Your task to perform on an android device: turn on the 24-hour format for clock Image 0: 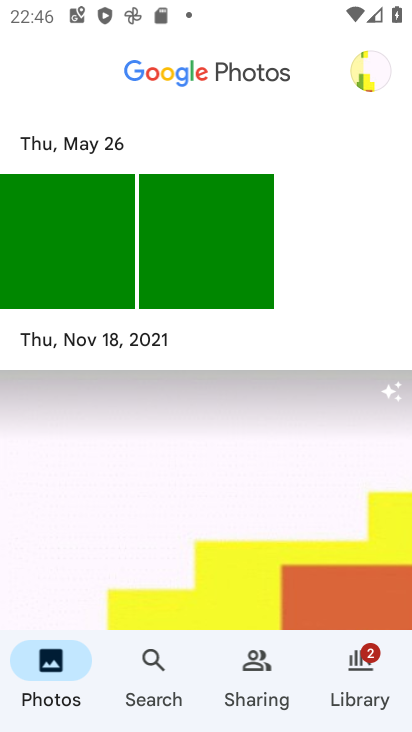
Step 0: drag from (191, 575) to (182, 53)
Your task to perform on an android device: turn on the 24-hour format for clock Image 1: 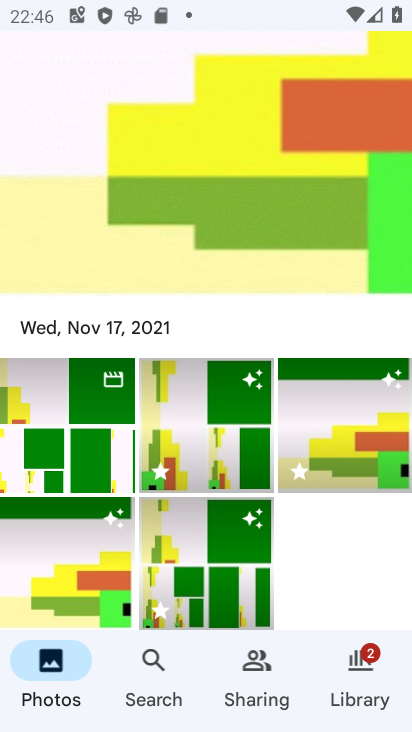
Step 1: drag from (311, 573) to (292, 89)
Your task to perform on an android device: turn on the 24-hour format for clock Image 2: 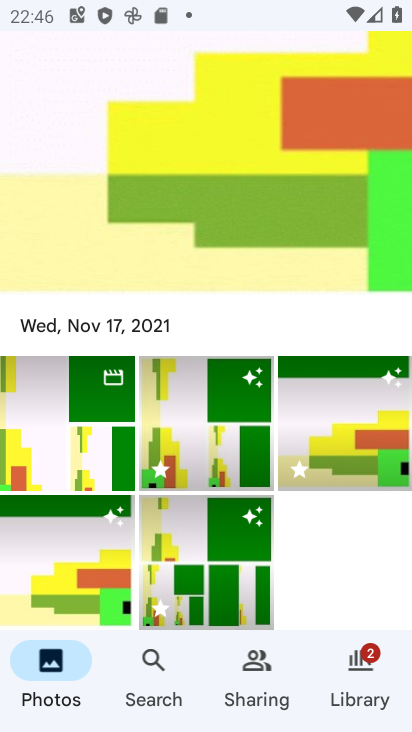
Step 2: drag from (229, 255) to (405, 698)
Your task to perform on an android device: turn on the 24-hour format for clock Image 3: 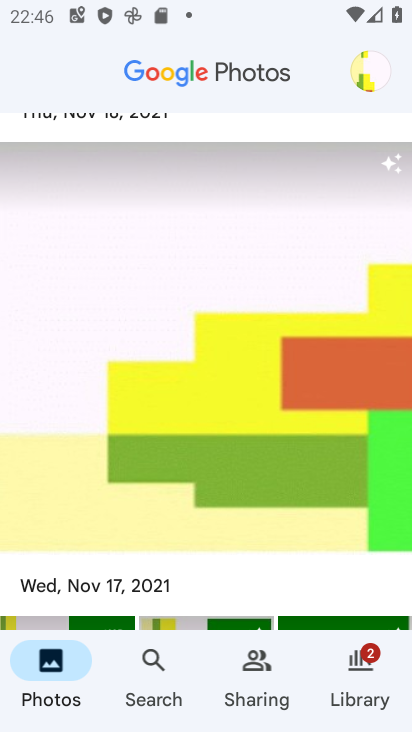
Step 3: press home button
Your task to perform on an android device: turn on the 24-hour format for clock Image 4: 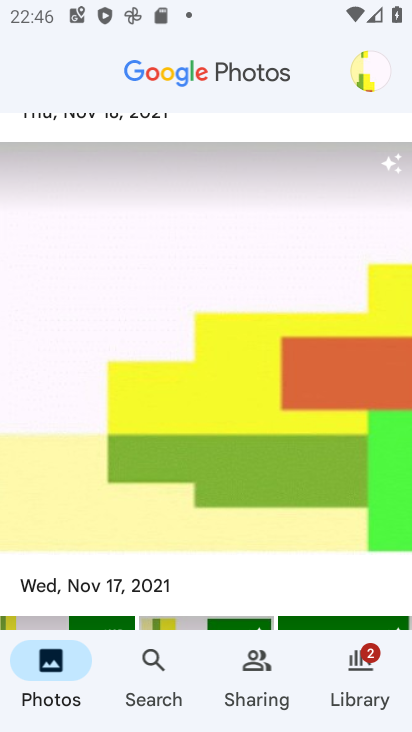
Step 4: drag from (213, 603) to (201, 5)
Your task to perform on an android device: turn on the 24-hour format for clock Image 5: 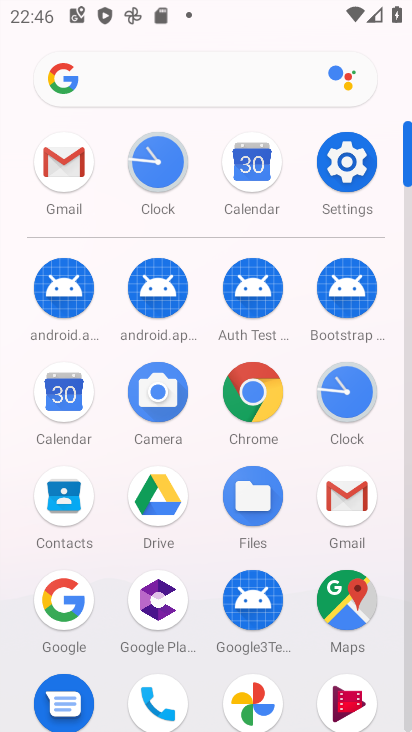
Step 5: click (349, 402)
Your task to perform on an android device: turn on the 24-hour format for clock Image 6: 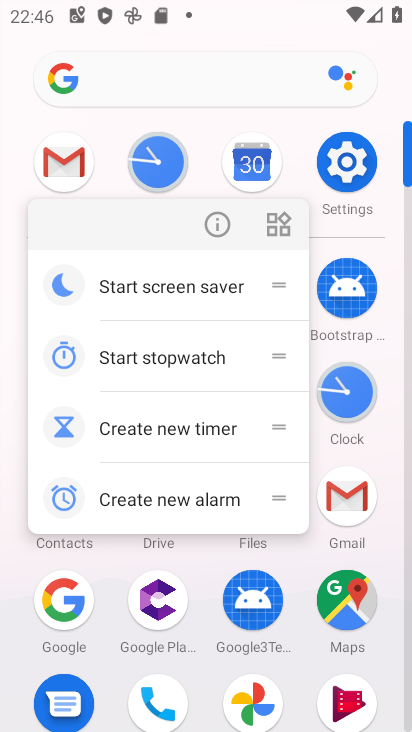
Step 6: click (215, 217)
Your task to perform on an android device: turn on the 24-hour format for clock Image 7: 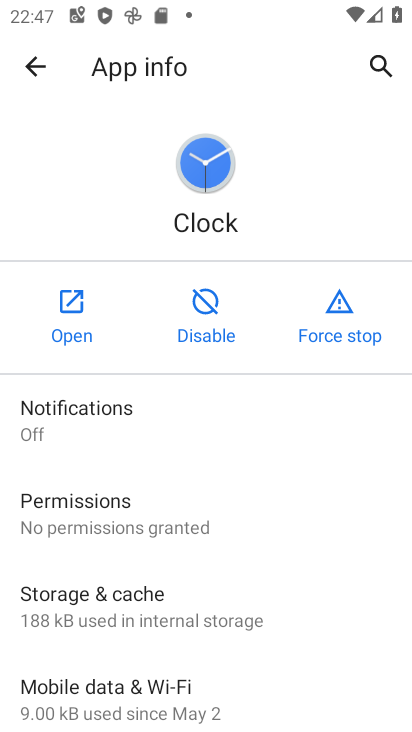
Step 7: click (71, 325)
Your task to perform on an android device: turn on the 24-hour format for clock Image 8: 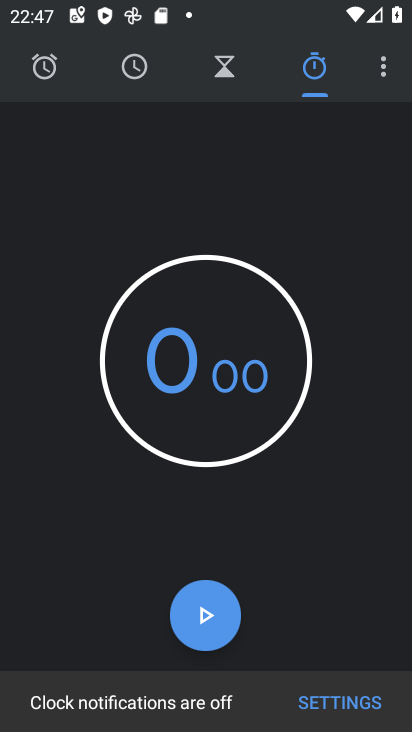
Step 8: click (381, 79)
Your task to perform on an android device: turn on the 24-hour format for clock Image 9: 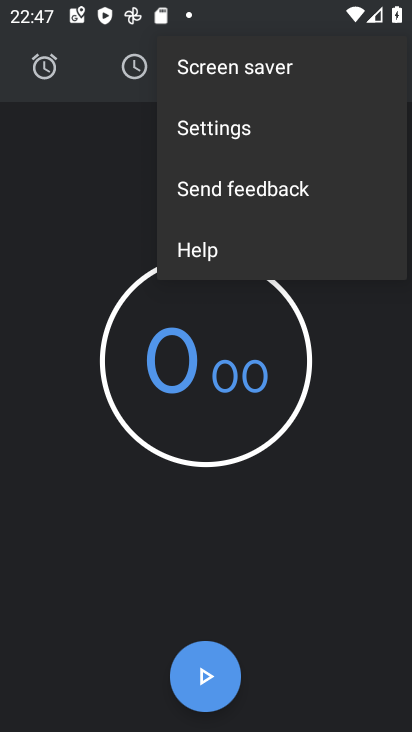
Step 9: click (284, 134)
Your task to perform on an android device: turn on the 24-hour format for clock Image 10: 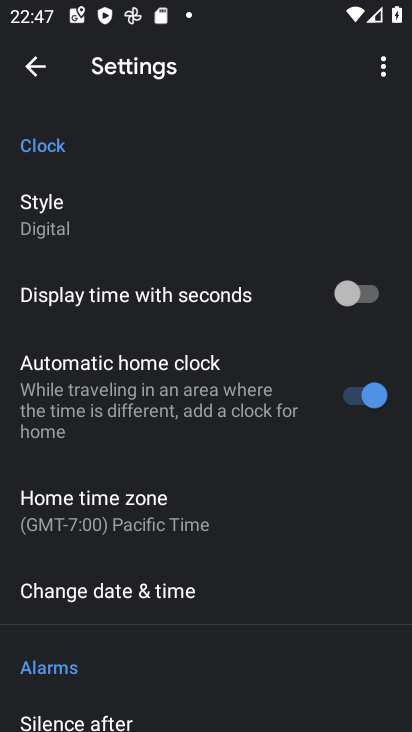
Step 10: drag from (178, 474) to (204, 233)
Your task to perform on an android device: turn on the 24-hour format for clock Image 11: 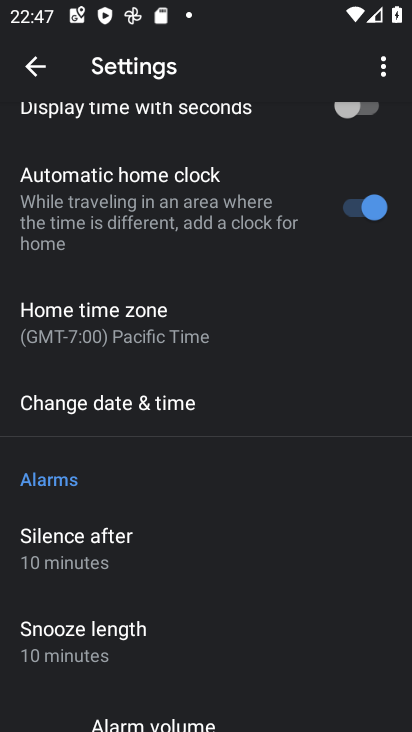
Step 11: click (181, 401)
Your task to perform on an android device: turn on the 24-hour format for clock Image 12: 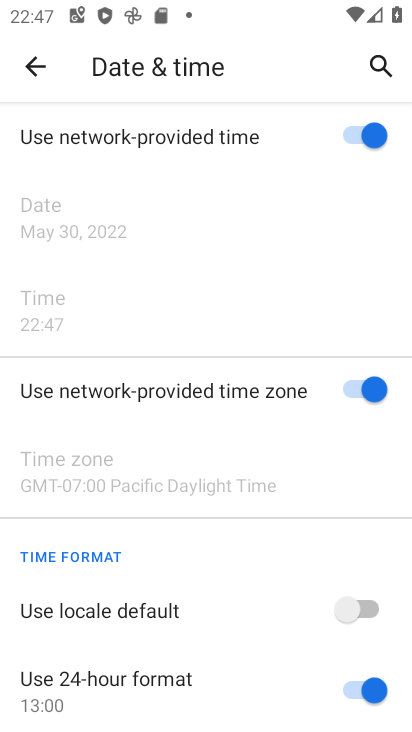
Step 12: task complete